Your task to perform on an android device: Open location settings Image 0: 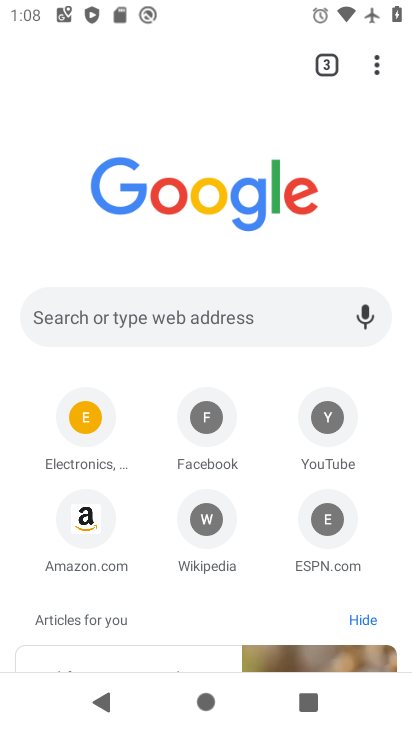
Step 0: press home button
Your task to perform on an android device: Open location settings Image 1: 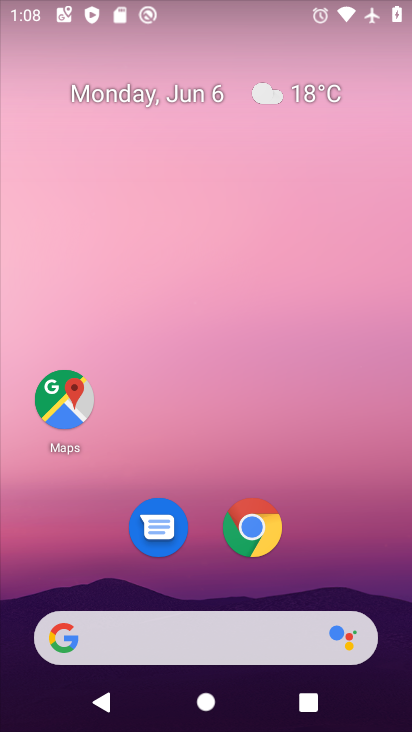
Step 1: drag from (370, 563) to (216, 2)
Your task to perform on an android device: Open location settings Image 2: 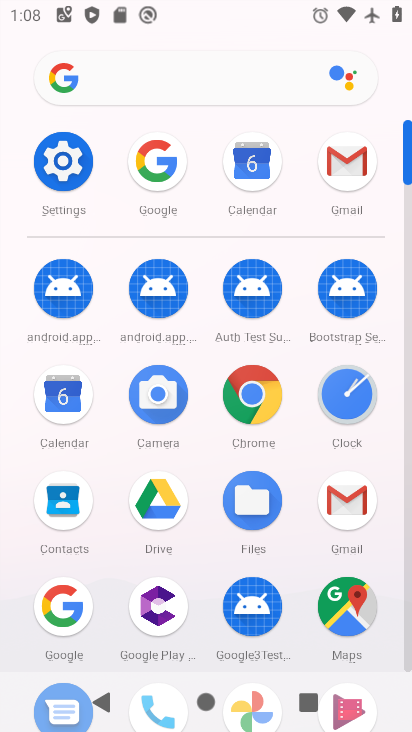
Step 2: click (58, 170)
Your task to perform on an android device: Open location settings Image 3: 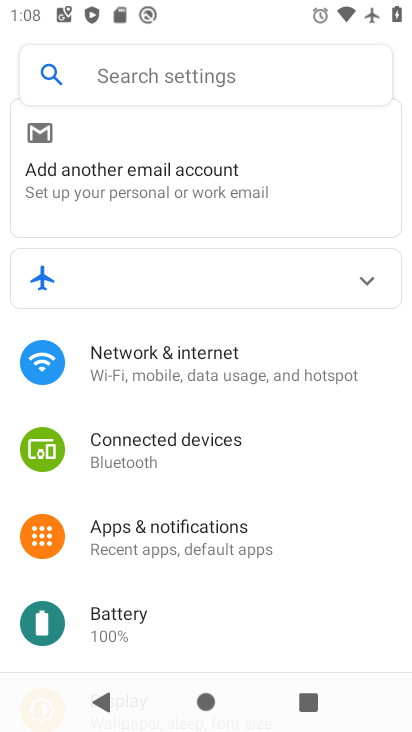
Step 3: drag from (286, 483) to (207, 110)
Your task to perform on an android device: Open location settings Image 4: 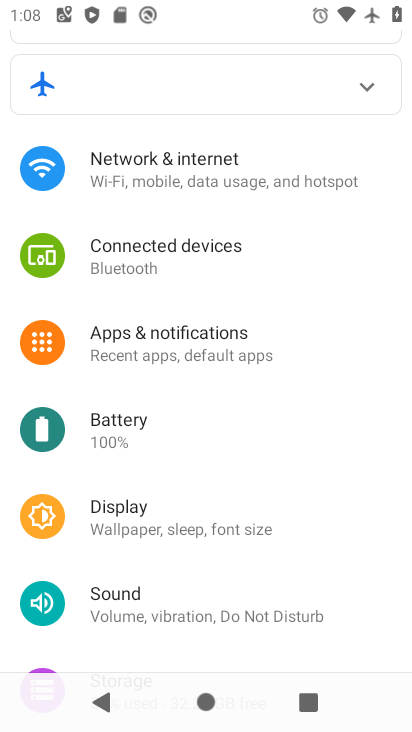
Step 4: drag from (194, 432) to (75, 60)
Your task to perform on an android device: Open location settings Image 5: 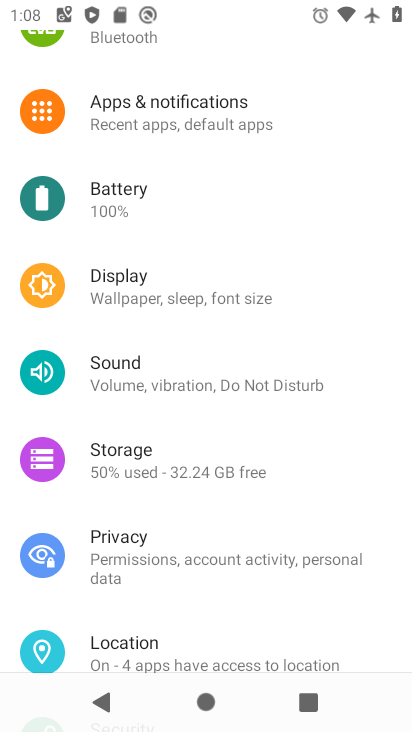
Step 5: click (195, 642)
Your task to perform on an android device: Open location settings Image 6: 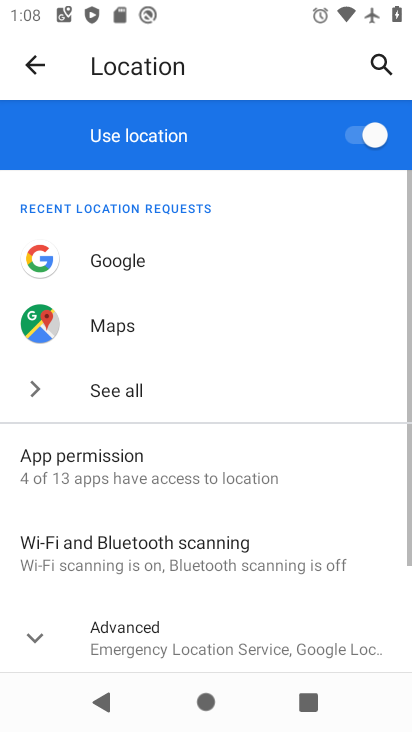
Step 6: task complete